Your task to perform on an android device: clear history in the chrome app Image 0: 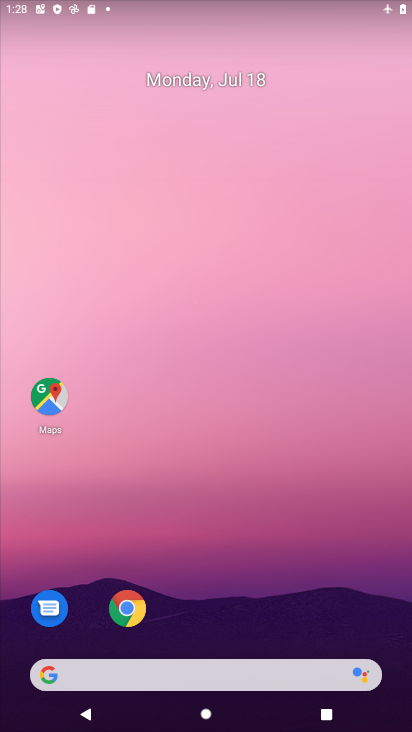
Step 0: drag from (354, 646) to (164, 33)
Your task to perform on an android device: clear history in the chrome app Image 1: 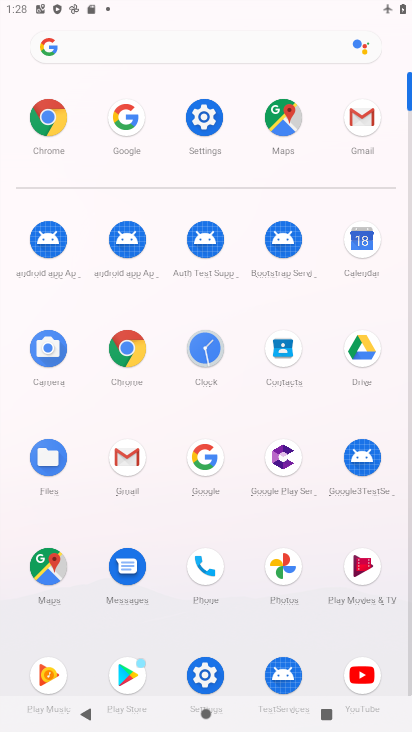
Step 1: click (120, 357)
Your task to perform on an android device: clear history in the chrome app Image 2: 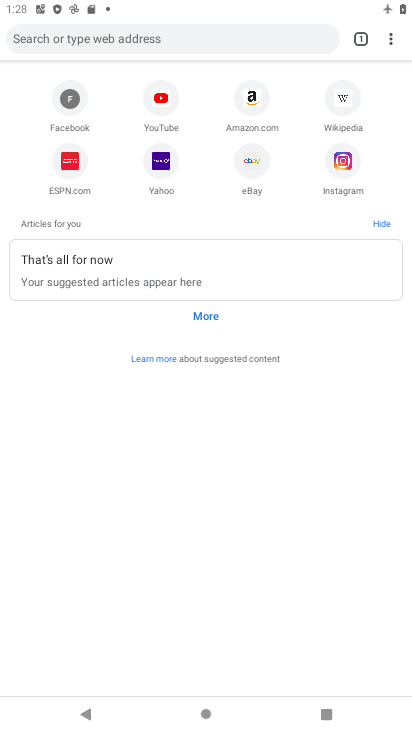
Step 2: click (397, 33)
Your task to perform on an android device: clear history in the chrome app Image 3: 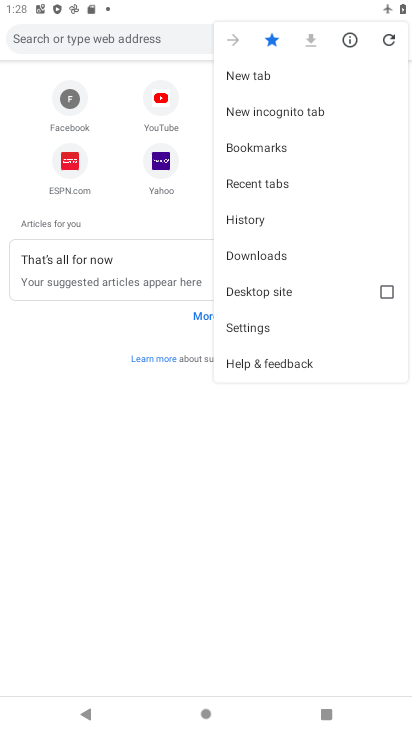
Step 3: click (268, 210)
Your task to perform on an android device: clear history in the chrome app Image 4: 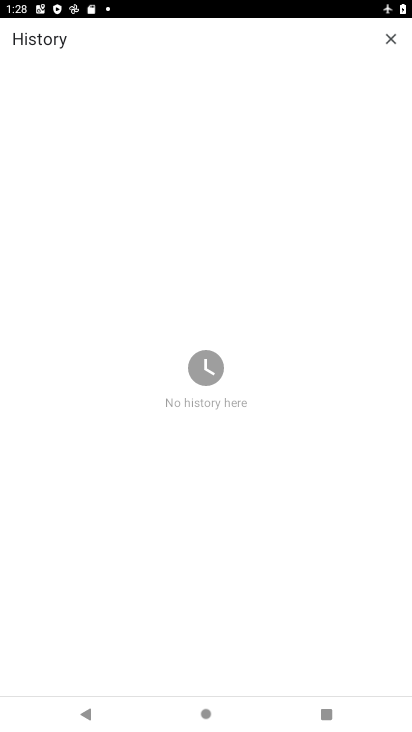
Step 4: task complete